Your task to perform on an android device: Open the calendar and show me this week's events? Image 0: 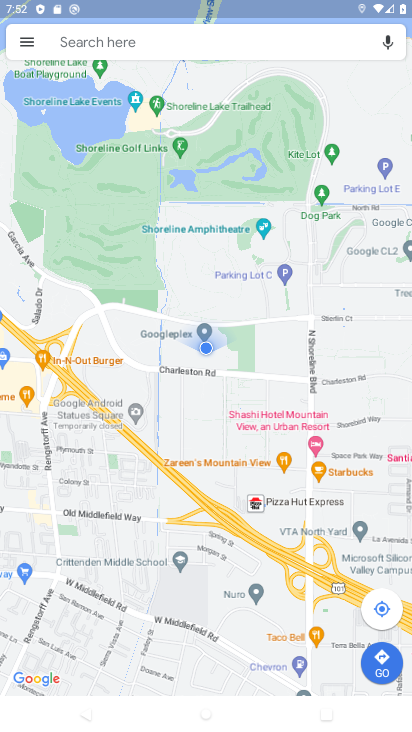
Step 0: press home button
Your task to perform on an android device: Open the calendar and show me this week's events? Image 1: 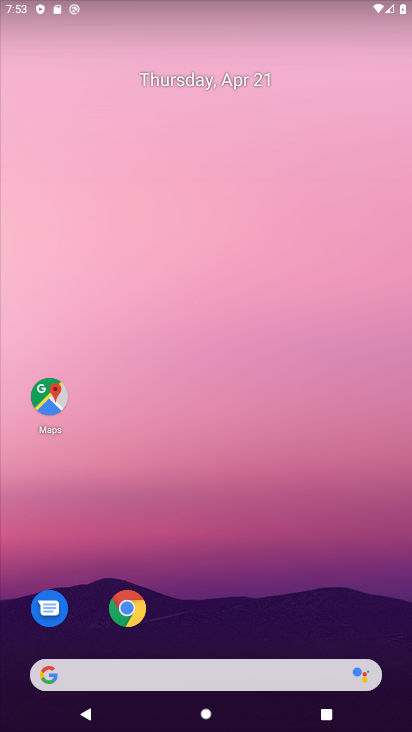
Step 1: click (172, 84)
Your task to perform on an android device: Open the calendar and show me this week's events? Image 2: 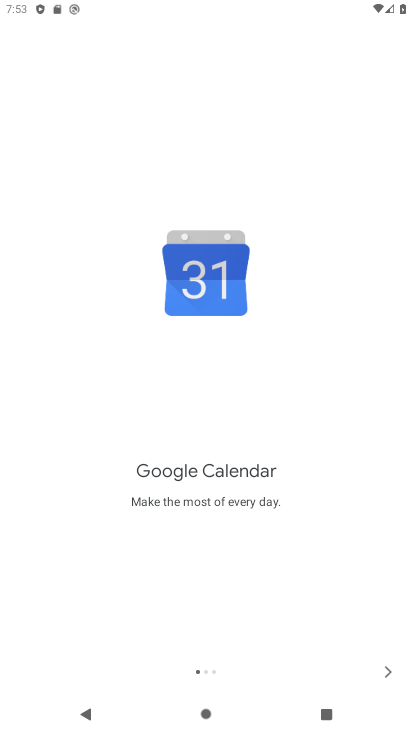
Step 2: click (385, 668)
Your task to perform on an android device: Open the calendar and show me this week's events? Image 3: 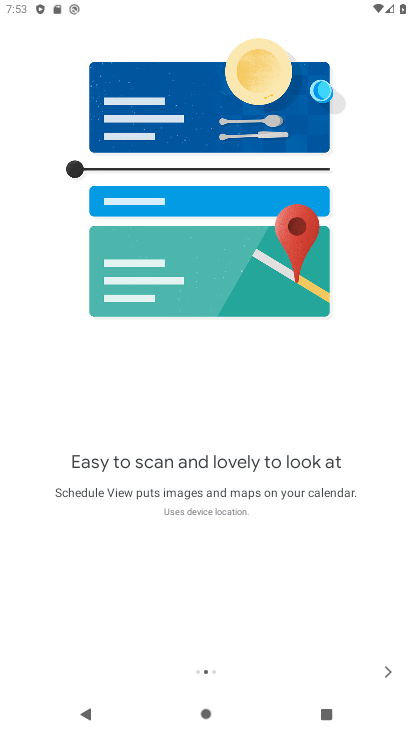
Step 3: click (388, 674)
Your task to perform on an android device: Open the calendar and show me this week's events? Image 4: 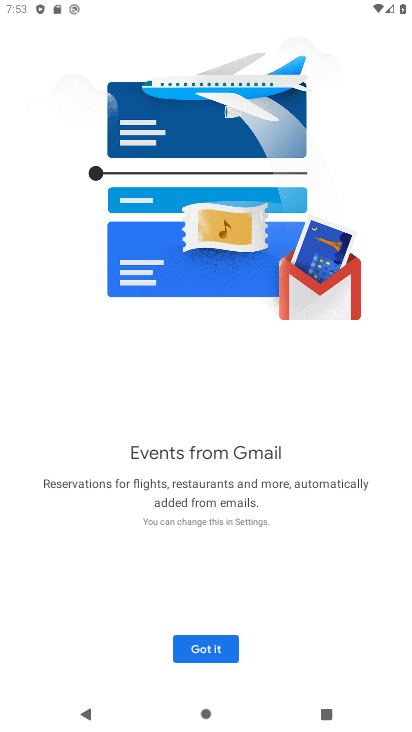
Step 4: click (203, 649)
Your task to perform on an android device: Open the calendar and show me this week's events? Image 5: 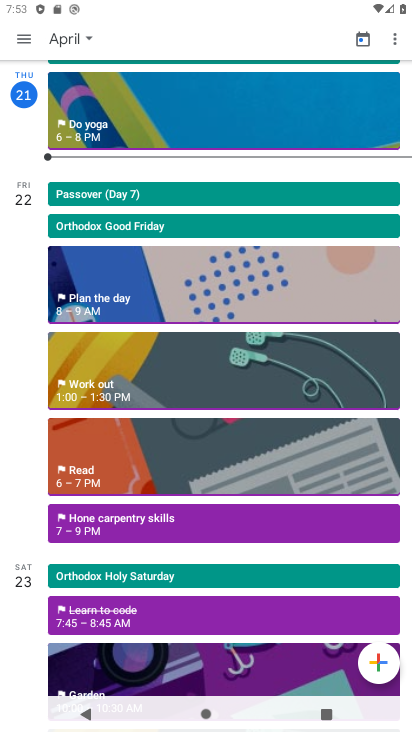
Step 5: click (78, 38)
Your task to perform on an android device: Open the calendar and show me this week's events? Image 6: 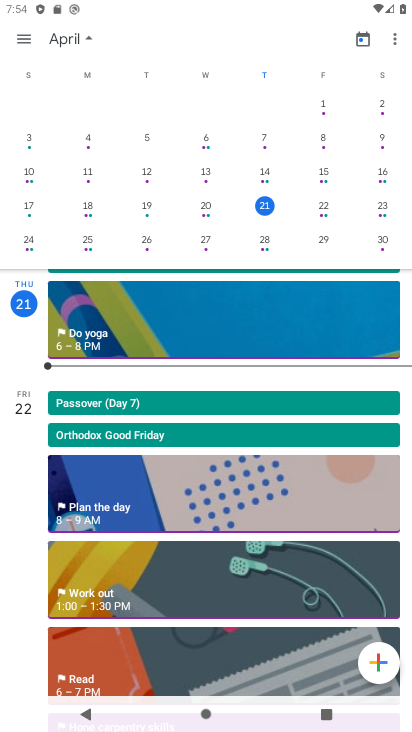
Step 6: click (18, 358)
Your task to perform on an android device: Open the calendar and show me this week's events? Image 7: 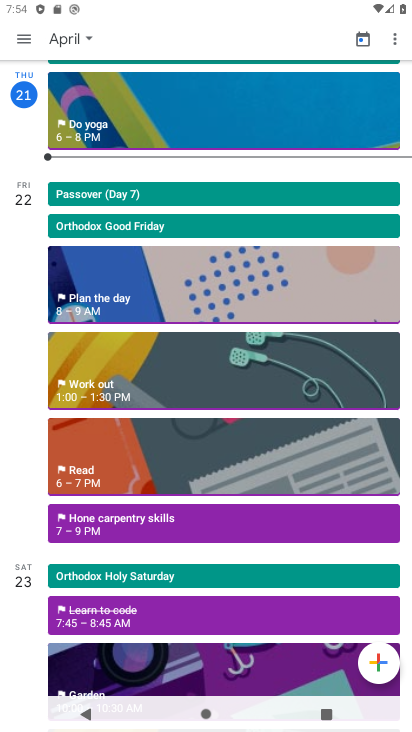
Step 7: click (18, 358)
Your task to perform on an android device: Open the calendar and show me this week's events? Image 8: 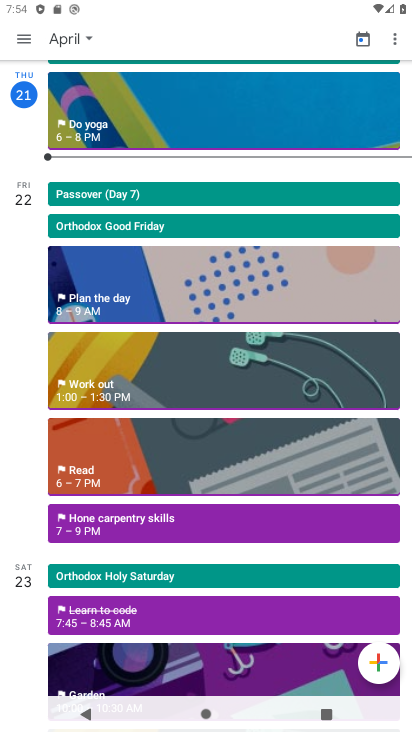
Step 8: task complete